Your task to perform on an android device: Do I have any events today? Image 0: 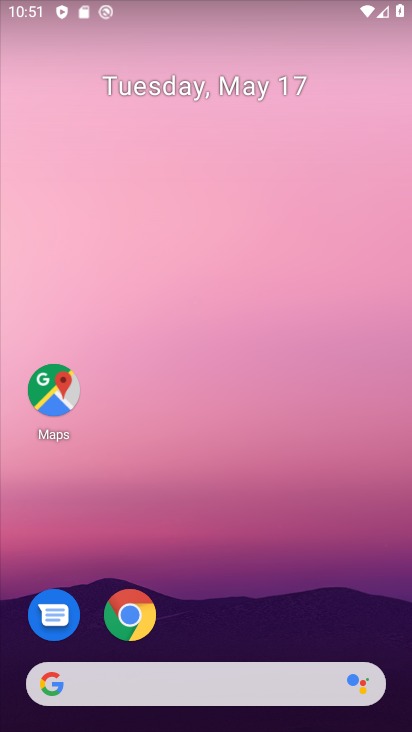
Step 0: click (135, 616)
Your task to perform on an android device: Do I have any events today? Image 1: 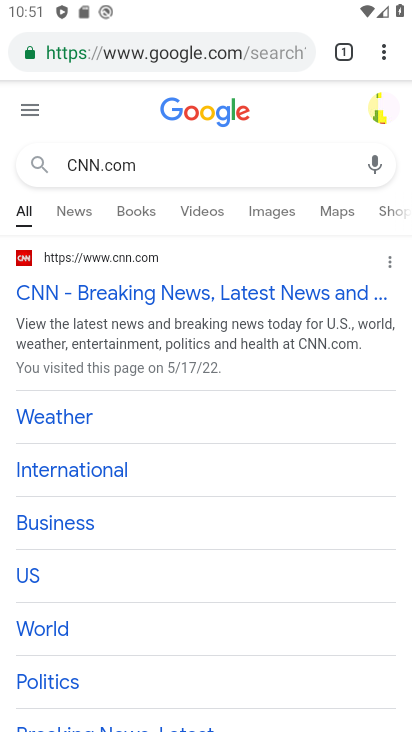
Step 1: press home button
Your task to perform on an android device: Do I have any events today? Image 2: 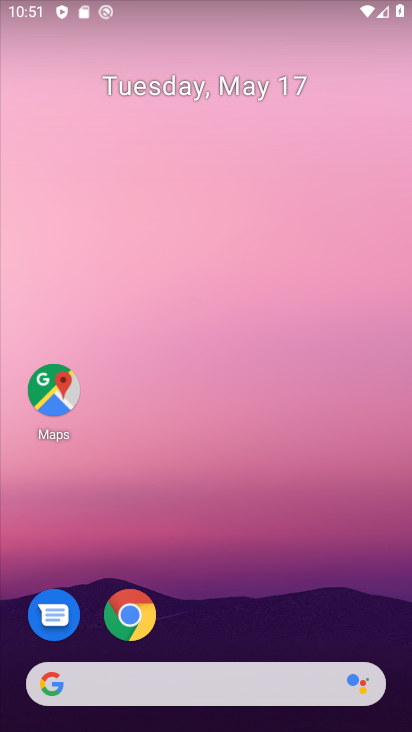
Step 2: drag from (224, 656) to (265, 292)
Your task to perform on an android device: Do I have any events today? Image 3: 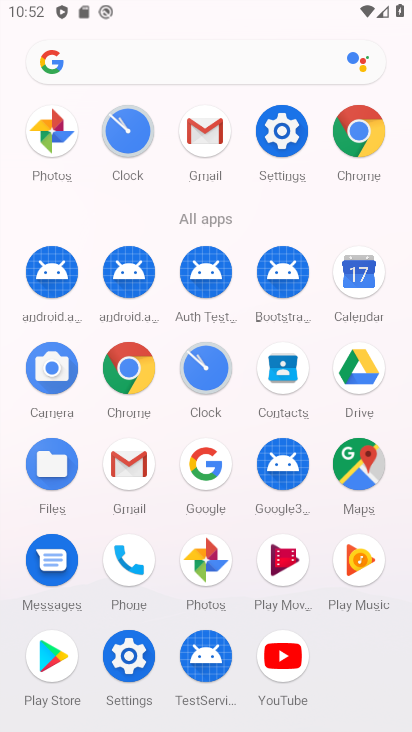
Step 3: click (351, 285)
Your task to perform on an android device: Do I have any events today? Image 4: 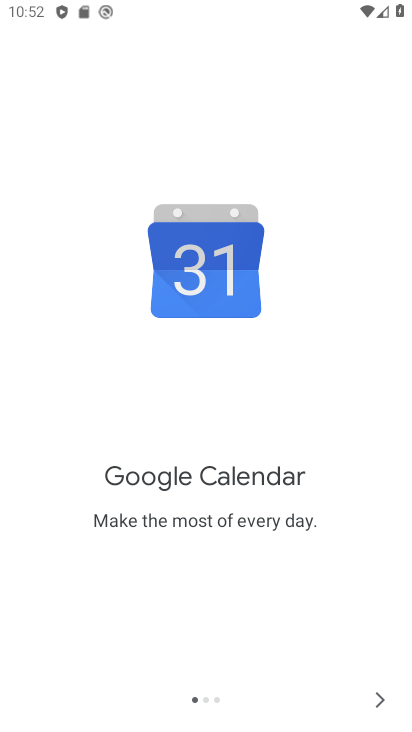
Step 4: click (379, 692)
Your task to perform on an android device: Do I have any events today? Image 5: 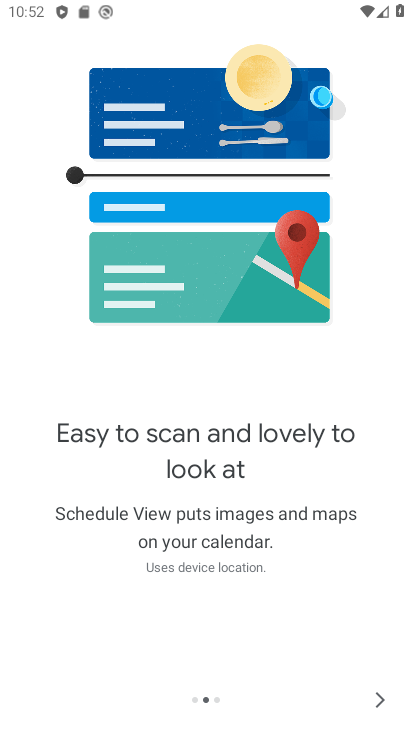
Step 5: click (370, 700)
Your task to perform on an android device: Do I have any events today? Image 6: 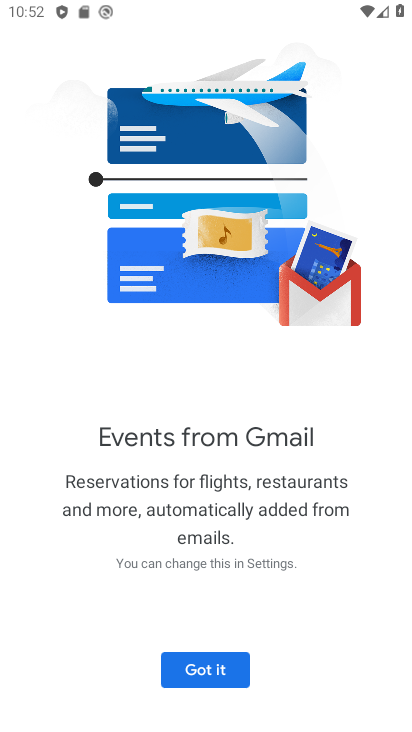
Step 6: click (370, 700)
Your task to perform on an android device: Do I have any events today? Image 7: 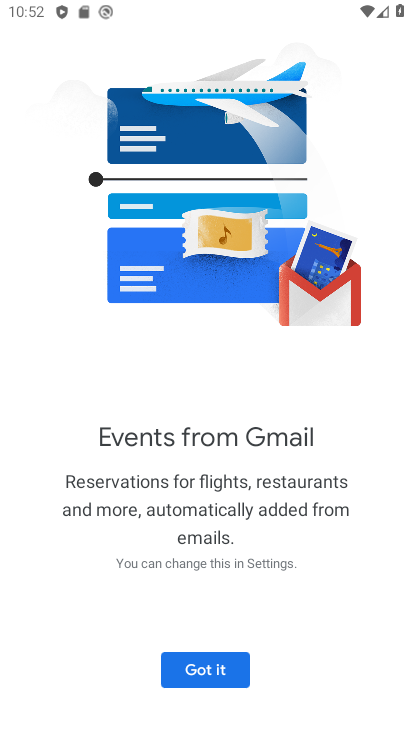
Step 7: click (228, 677)
Your task to perform on an android device: Do I have any events today? Image 8: 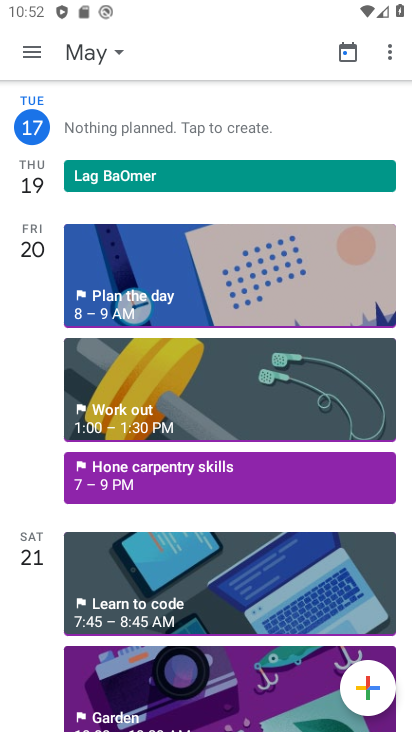
Step 8: click (110, 51)
Your task to perform on an android device: Do I have any events today? Image 9: 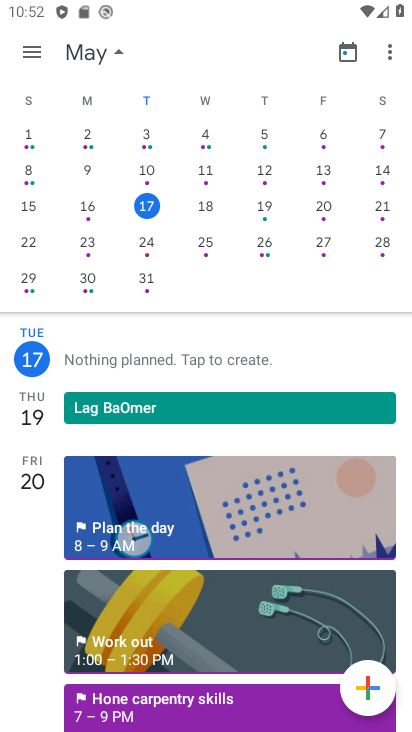
Step 9: click (205, 204)
Your task to perform on an android device: Do I have any events today? Image 10: 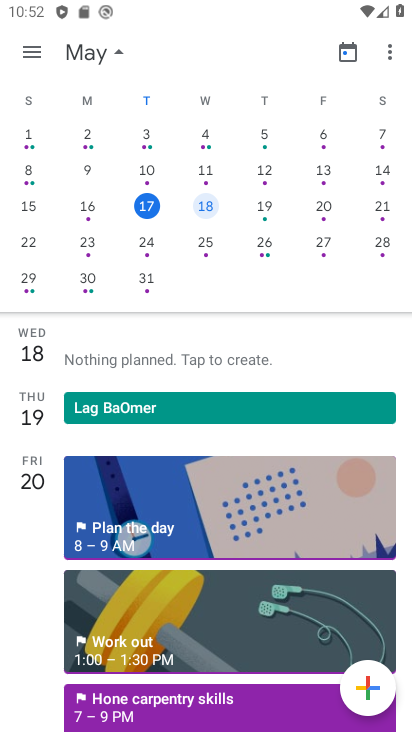
Step 10: task complete